Your task to perform on an android device: Open Chrome and go to settings Image 0: 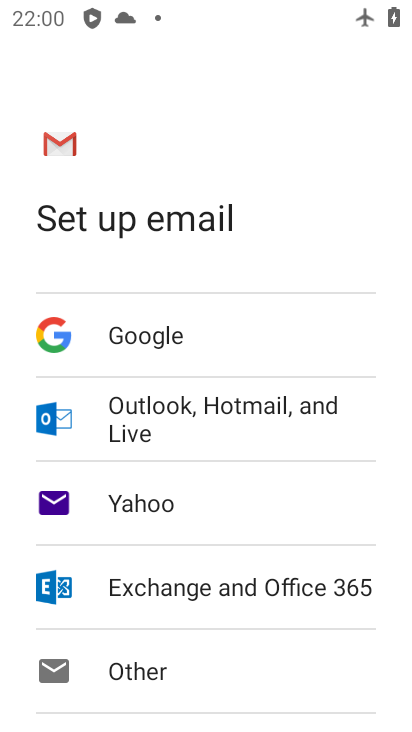
Step 0: press home button
Your task to perform on an android device: Open Chrome and go to settings Image 1: 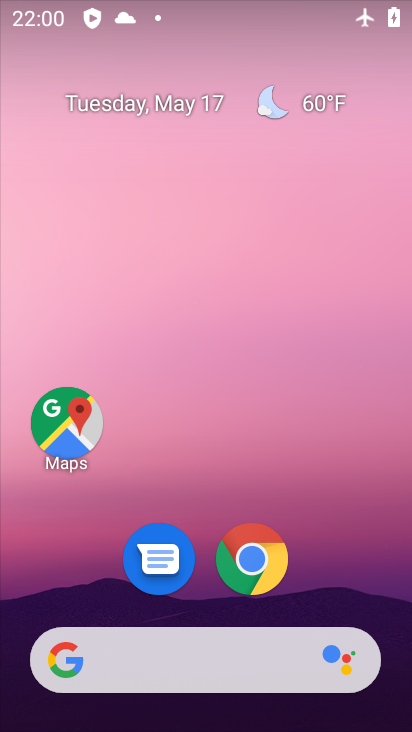
Step 1: click (255, 558)
Your task to perform on an android device: Open Chrome and go to settings Image 2: 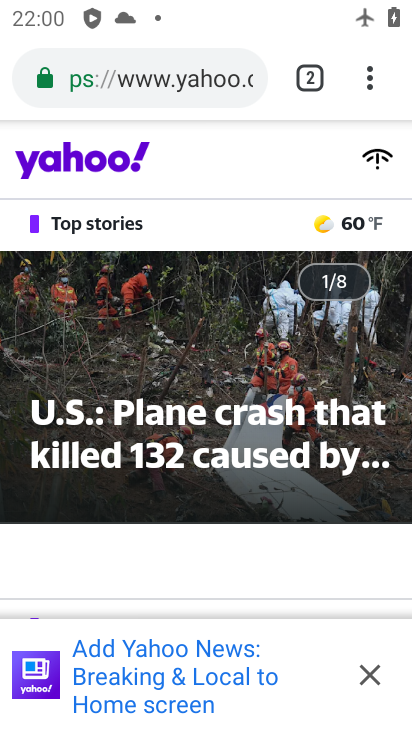
Step 2: click (373, 68)
Your task to perform on an android device: Open Chrome and go to settings Image 3: 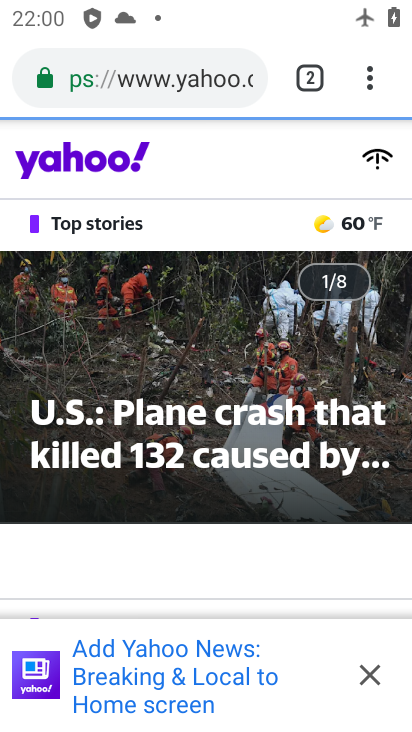
Step 3: task complete